Your task to perform on an android device: Open the phone app and click the voicemail tab. Image 0: 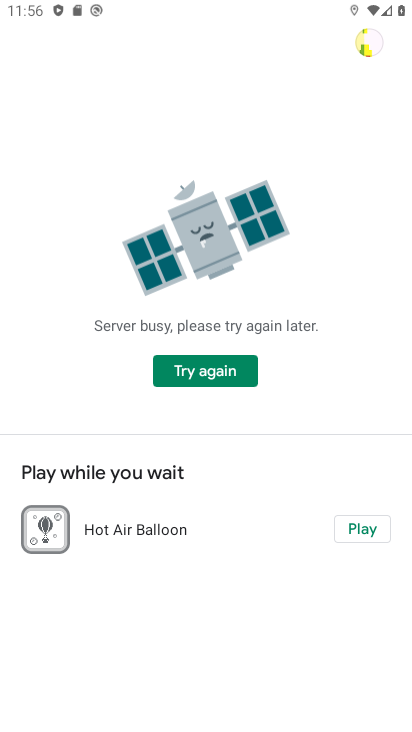
Step 0: press home button
Your task to perform on an android device: Open the phone app and click the voicemail tab. Image 1: 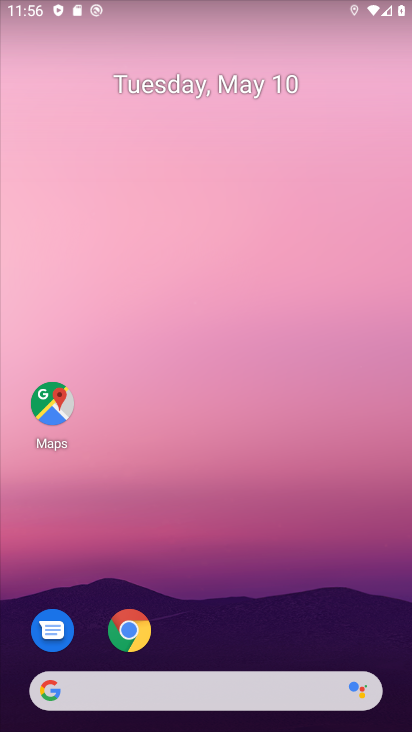
Step 1: drag from (214, 661) to (247, 8)
Your task to perform on an android device: Open the phone app and click the voicemail tab. Image 2: 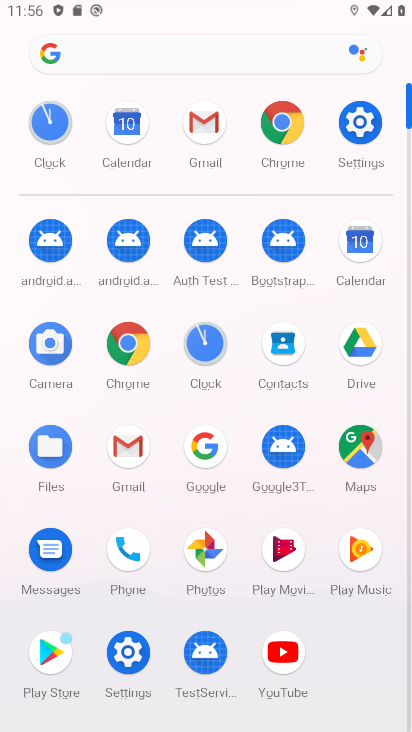
Step 2: click (122, 568)
Your task to perform on an android device: Open the phone app and click the voicemail tab. Image 3: 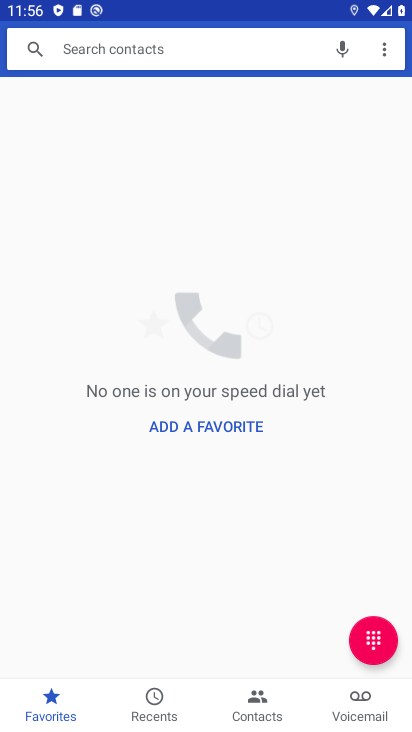
Step 3: click (340, 707)
Your task to perform on an android device: Open the phone app and click the voicemail tab. Image 4: 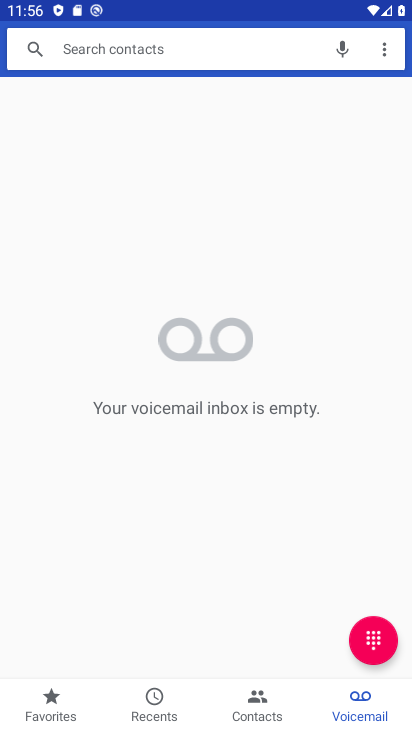
Step 4: task complete